Your task to perform on an android device: open a new tab in the chrome app Image 0: 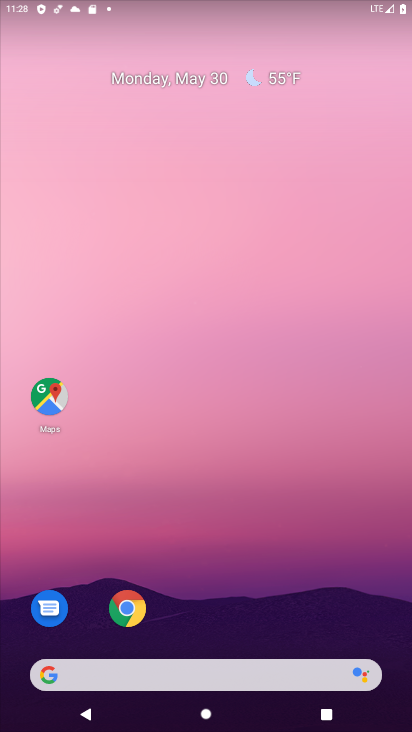
Step 0: click (138, 613)
Your task to perform on an android device: open a new tab in the chrome app Image 1: 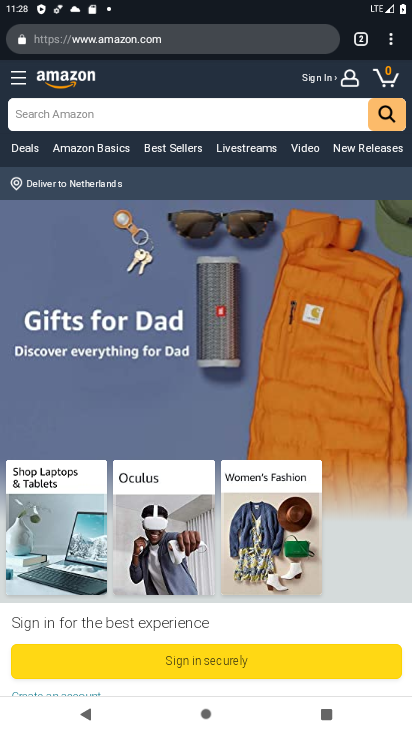
Step 1: click (389, 42)
Your task to perform on an android device: open a new tab in the chrome app Image 2: 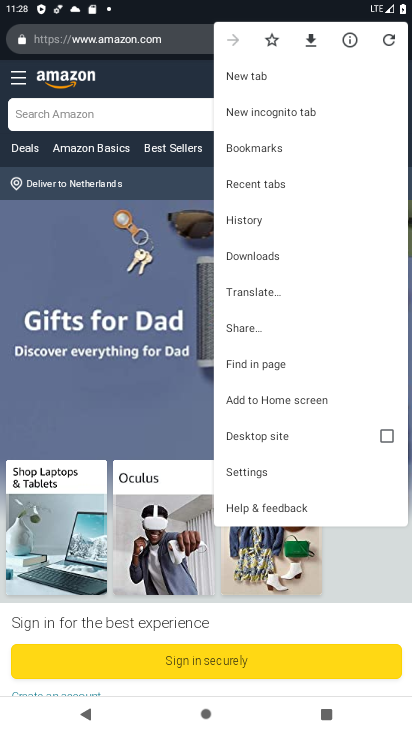
Step 2: click (246, 81)
Your task to perform on an android device: open a new tab in the chrome app Image 3: 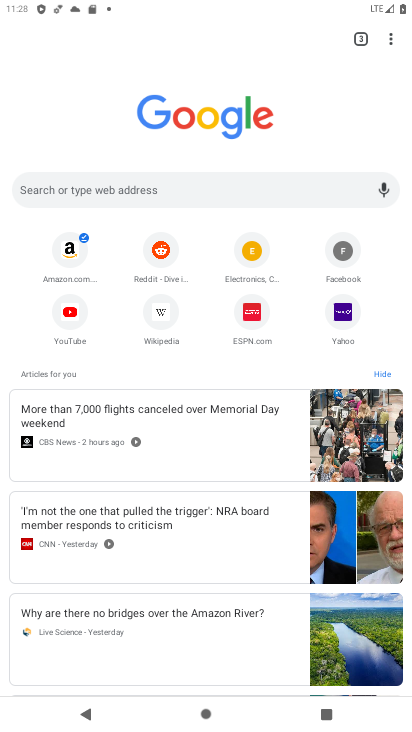
Step 3: task complete